Your task to perform on an android device: Open Google Chrome and open the bookmarks view Image 0: 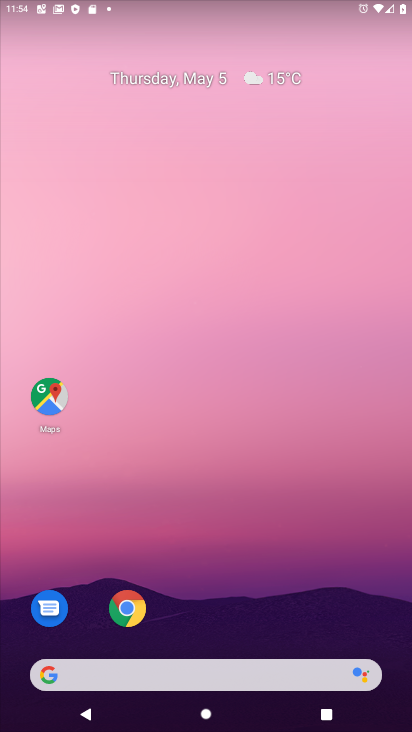
Step 0: click (135, 623)
Your task to perform on an android device: Open Google Chrome and open the bookmarks view Image 1: 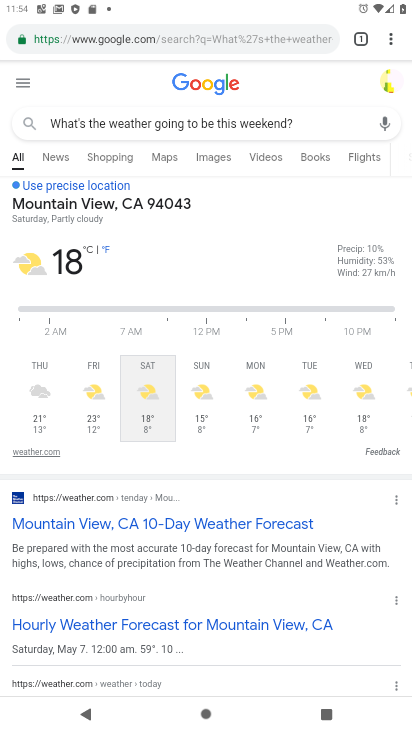
Step 1: task complete